Your task to perform on an android device: Open the map Image 0: 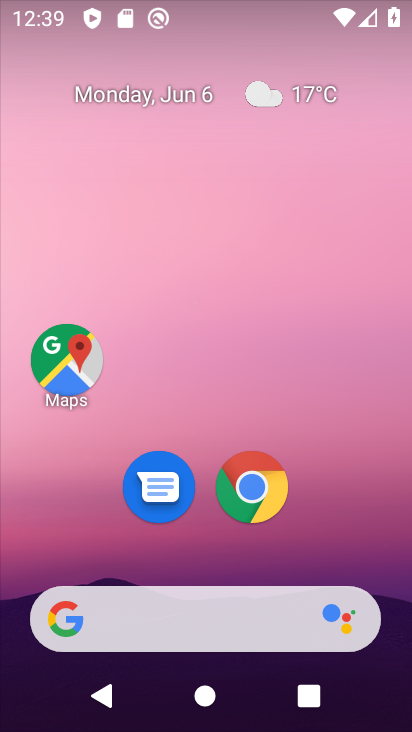
Step 0: click (63, 362)
Your task to perform on an android device: Open the map Image 1: 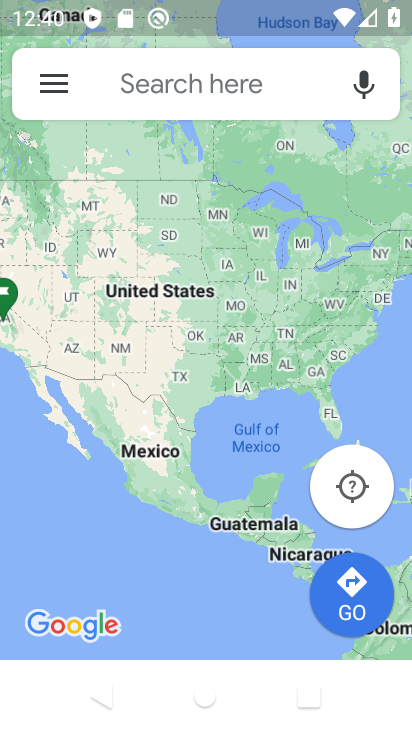
Step 1: task complete